Your task to perform on an android device: When is my next meeting? Image 0: 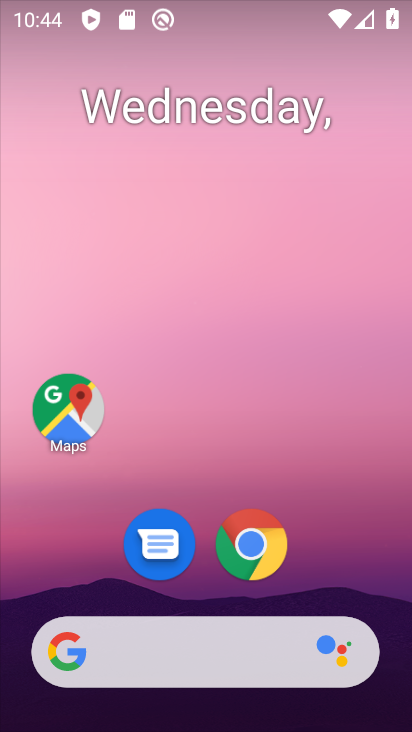
Step 0: drag from (312, 588) to (362, 115)
Your task to perform on an android device: When is my next meeting? Image 1: 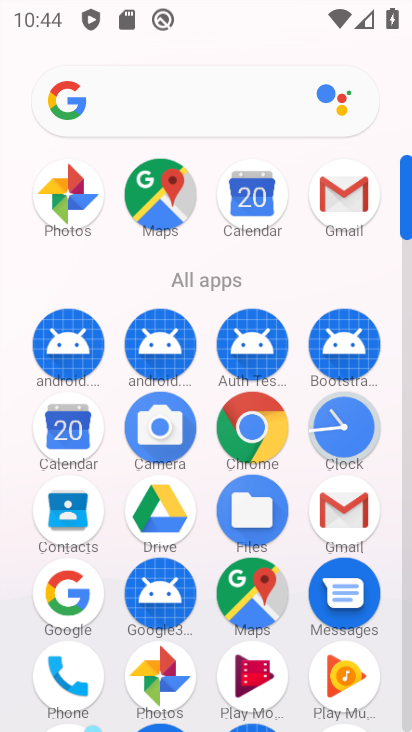
Step 1: click (78, 425)
Your task to perform on an android device: When is my next meeting? Image 2: 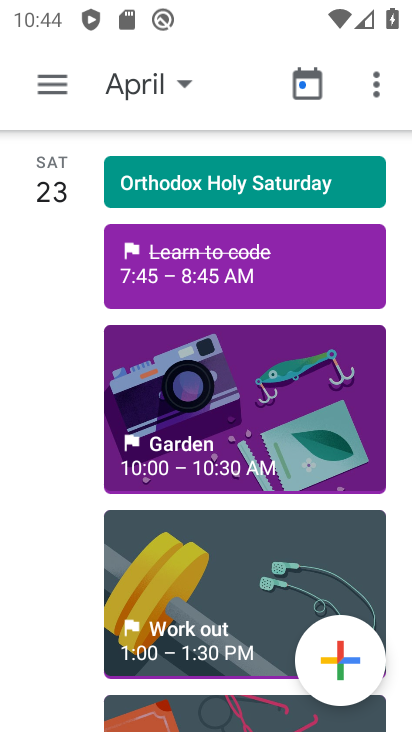
Step 2: click (55, 93)
Your task to perform on an android device: When is my next meeting? Image 3: 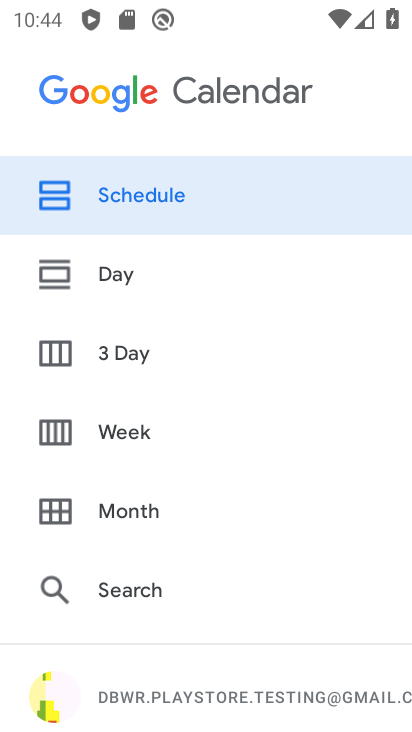
Step 3: drag from (184, 510) to (230, 310)
Your task to perform on an android device: When is my next meeting? Image 4: 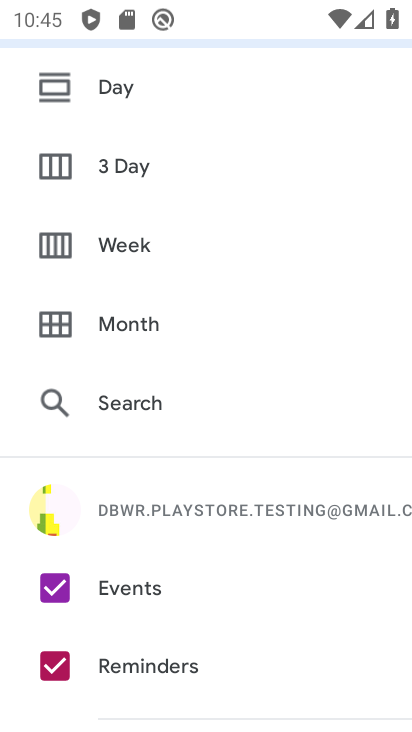
Step 4: click (144, 86)
Your task to perform on an android device: When is my next meeting? Image 5: 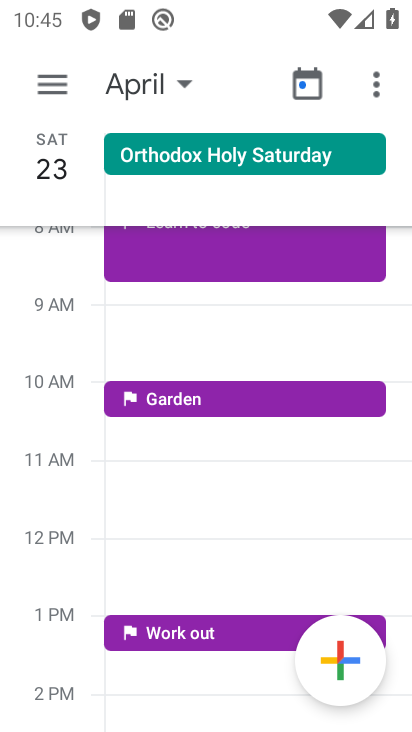
Step 5: click (157, 78)
Your task to perform on an android device: When is my next meeting? Image 6: 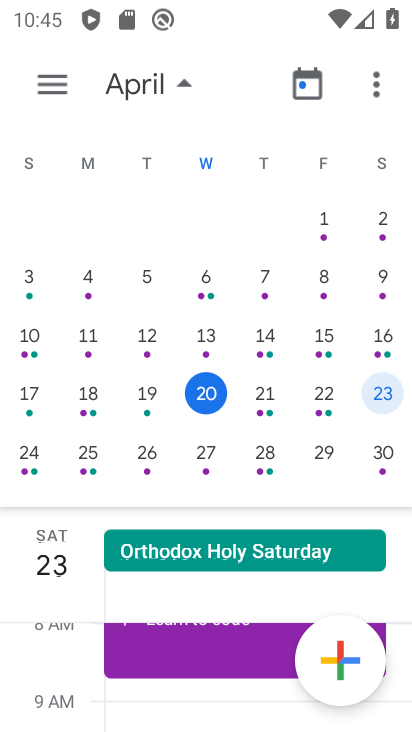
Step 6: click (203, 399)
Your task to perform on an android device: When is my next meeting? Image 7: 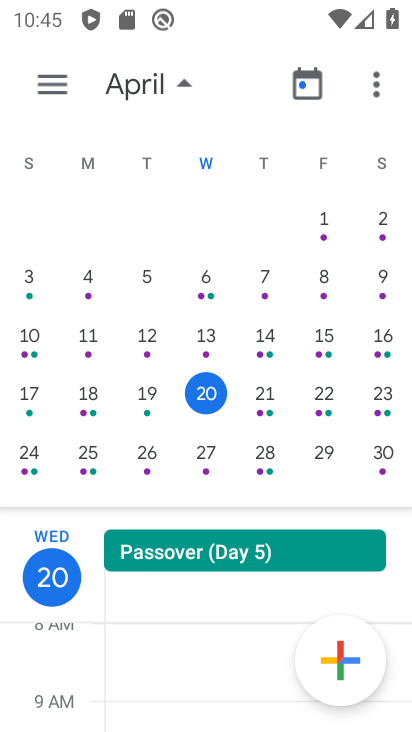
Step 7: task complete